Your task to perform on an android device: Turn off the flashlight Image 0: 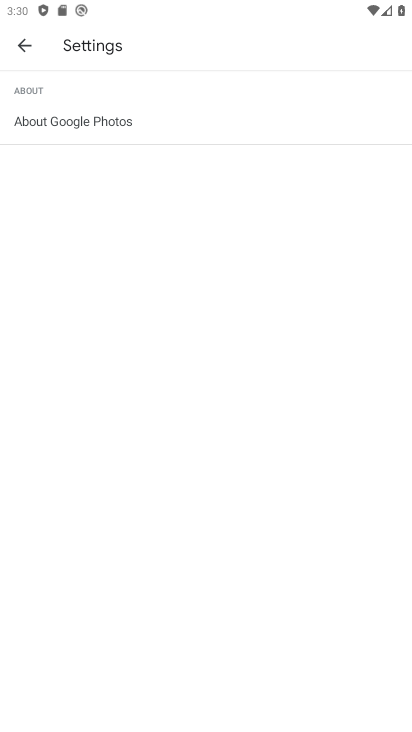
Step 0: press home button
Your task to perform on an android device: Turn off the flashlight Image 1: 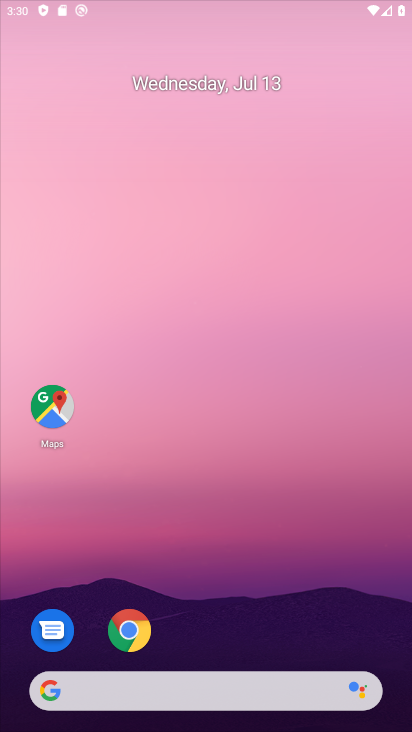
Step 1: drag from (247, 588) to (241, 19)
Your task to perform on an android device: Turn off the flashlight Image 2: 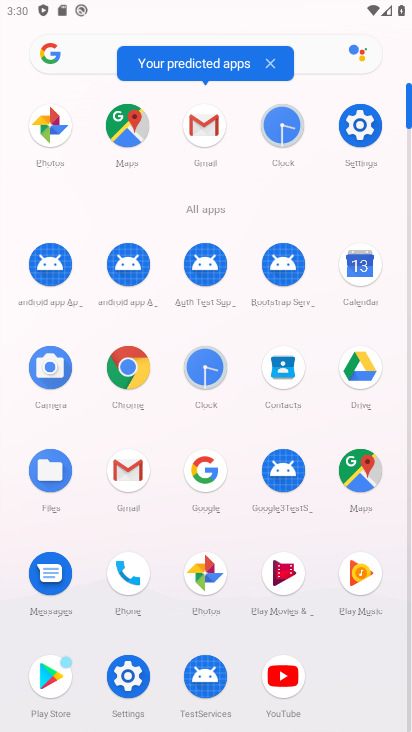
Step 2: click (366, 138)
Your task to perform on an android device: Turn off the flashlight Image 3: 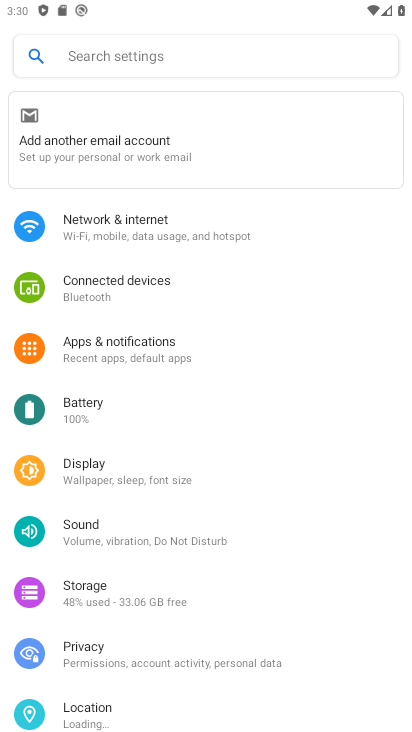
Step 3: task complete